Your task to perform on an android device: View the shopping cart on ebay.com. Search for "razer naga" on ebay.com, select the first entry, add it to the cart, then select checkout. Image 0: 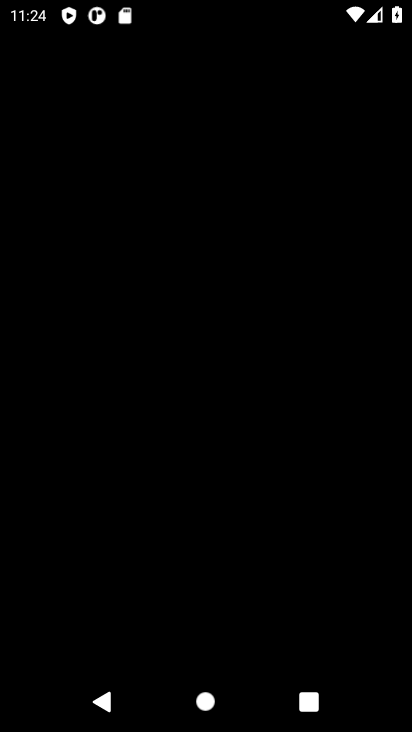
Step 0: press home button
Your task to perform on an android device: View the shopping cart on ebay.com. Search for "razer naga" on ebay.com, select the first entry, add it to the cart, then select checkout. Image 1: 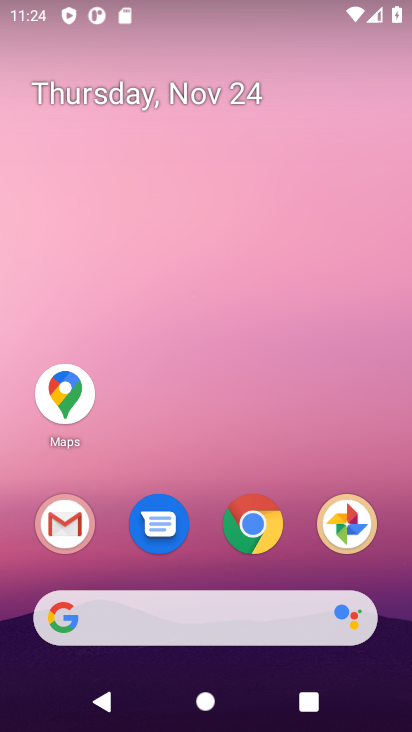
Step 1: click (252, 533)
Your task to perform on an android device: View the shopping cart on ebay.com. Search for "razer naga" on ebay.com, select the first entry, add it to the cart, then select checkout. Image 2: 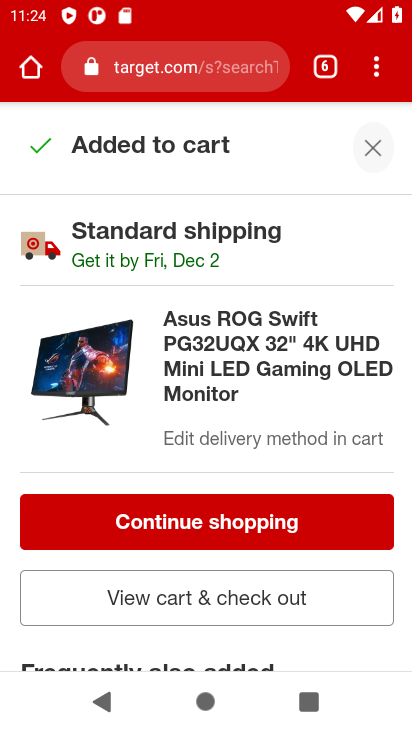
Step 2: click (144, 71)
Your task to perform on an android device: View the shopping cart on ebay.com. Search for "razer naga" on ebay.com, select the first entry, add it to the cart, then select checkout. Image 3: 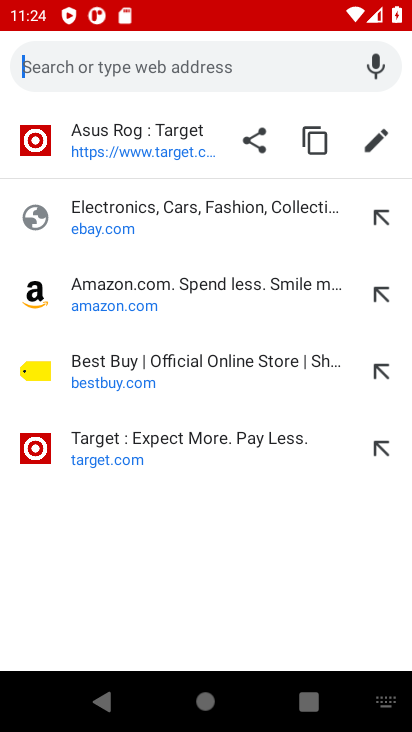
Step 3: click (95, 224)
Your task to perform on an android device: View the shopping cart on ebay.com. Search for "razer naga" on ebay.com, select the first entry, add it to the cart, then select checkout. Image 4: 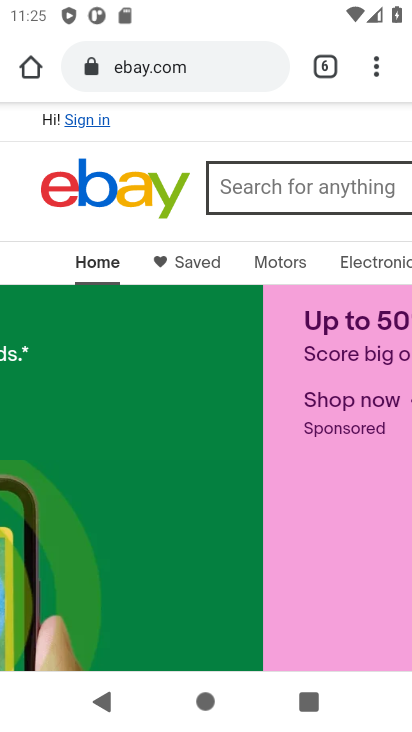
Step 4: drag from (217, 232) to (11, 210)
Your task to perform on an android device: View the shopping cart on ebay.com. Search for "razer naga" on ebay.com, select the first entry, add it to the cart, then select checkout. Image 5: 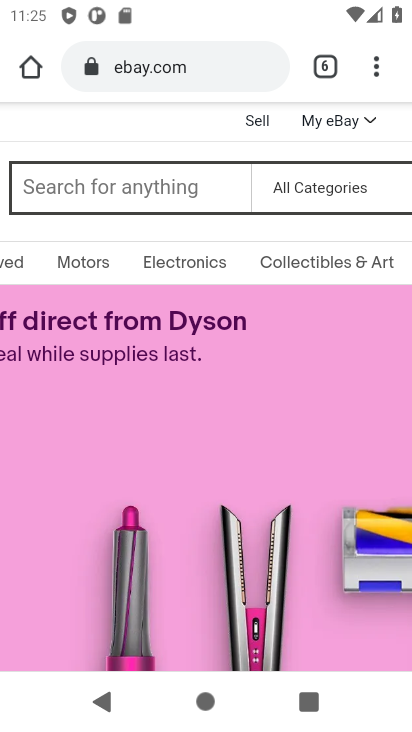
Step 5: drag from (267, 226) to (35, 156)
Your task to perform on an android device: View the shopping cart on ebay.com. Search for "razer naga" on ebay.com, select the first entry, add it to the cart, then select checkout. Image 6: 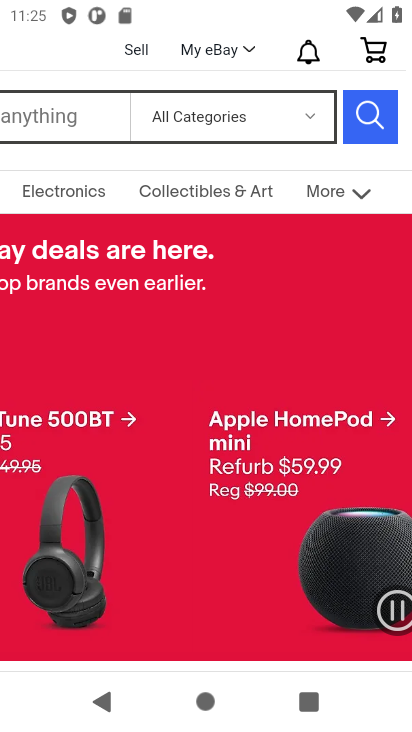
Step 6: click (382, 50)
Your task to perform on an android device: View the shopping cart on ebay.com. Search for "razer naga" on ebay.com, select the first entry, add it to the cart, then select checkout. Image 7: 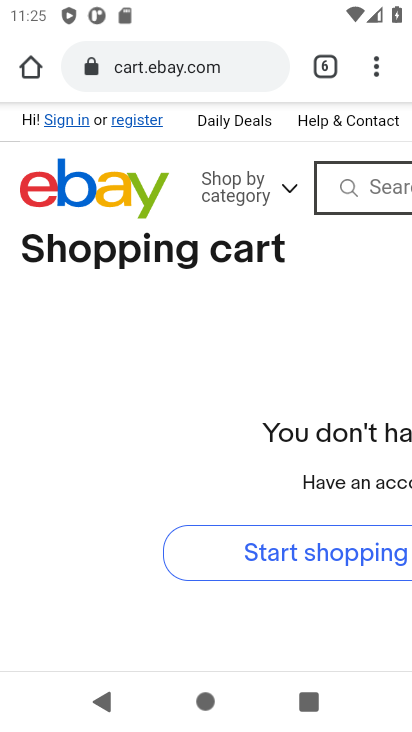
Step 7: click (352, 191)
Your task to perform on an android device: View the shopping cart on ebay.com. Search for "razer naga" on ebay.com, select the first entry, add it to the cart, then select checkout. Image 8: 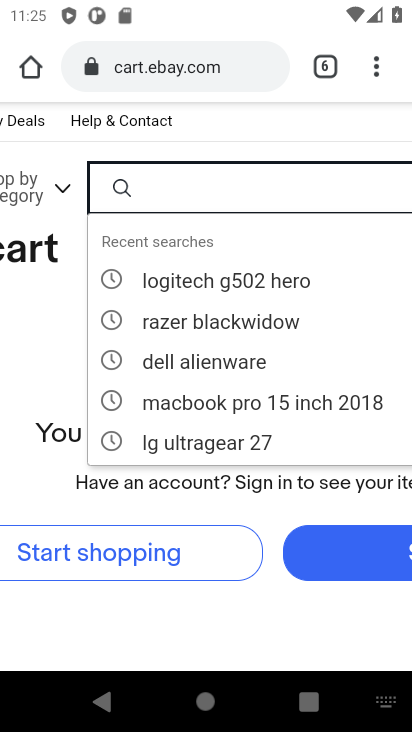
Step 8: type "razer naga"
Your task to perform on an android device: View the shopping cart on ebay.com. Search for "razer naga" on ebay.com, select the first entry, add it to the cart, then select checkout. Image 9: 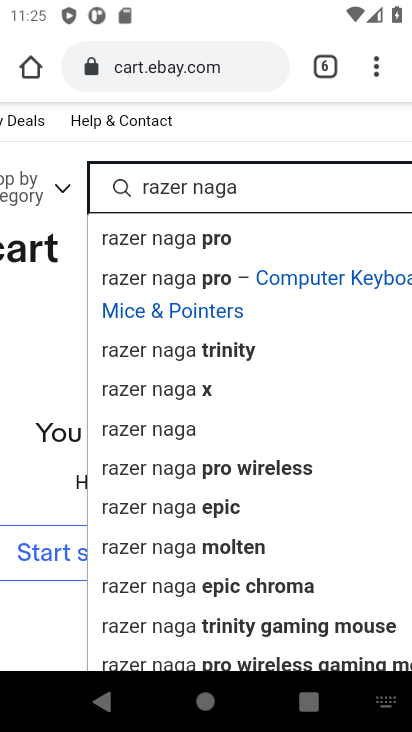
Step 9: click (156, 437)
Your task to perform on an android device: View the shopping cart on ebay.com. Search for "razer naga" on ebay.com, select the first entry, add it to the cart, then select checkout. Image 10: 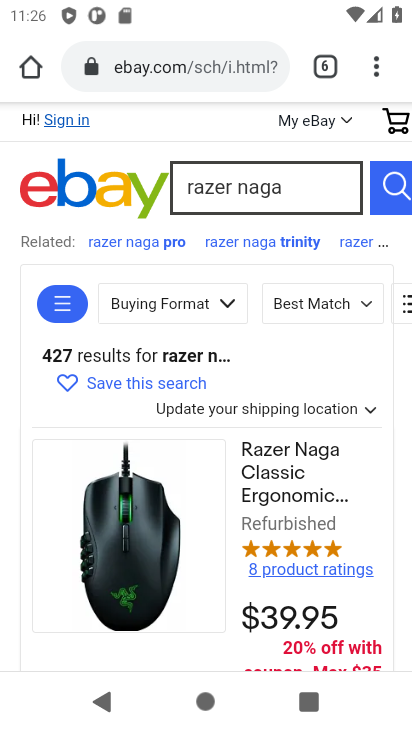
Step 10: drag from (191, 523) to (193, 373)
Your task to perform on an android device: View the shopping cart on ebay.com. Search for "razer naga" on ebay.com, select the first entry, add it to the cart, then select checkout. Image 11: 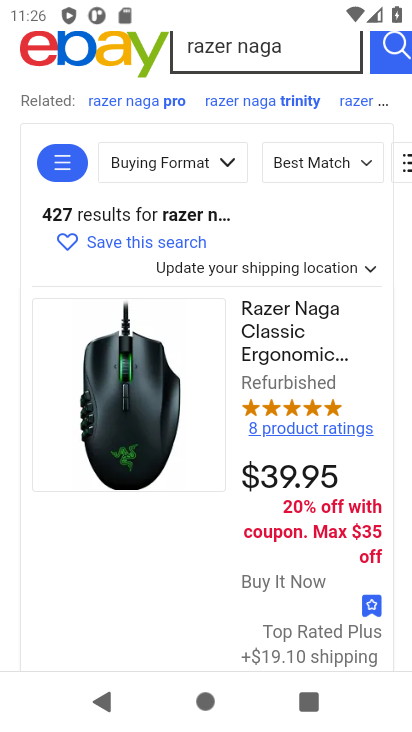
Step 11: click (143, 432)
Your task to perform on an android device: View the shopping cart on ebay.com. Search for "razer naga" on ebay.com, select the first entry, add it to the cart, then select checkout. Image 12: 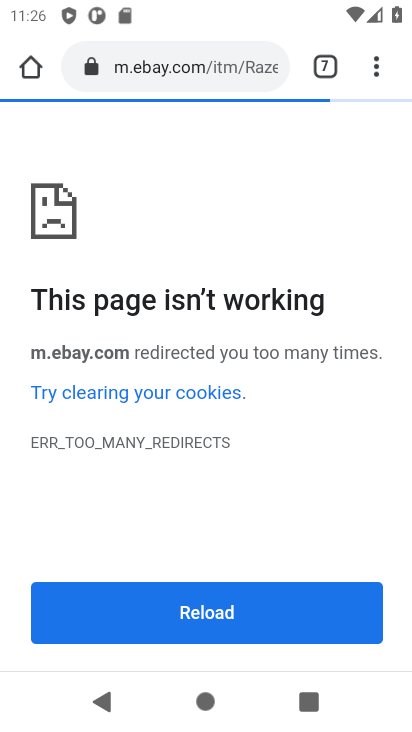
Step 12: task complete